Your task to perform on an android device: Go to Yahoo.com Image 0: 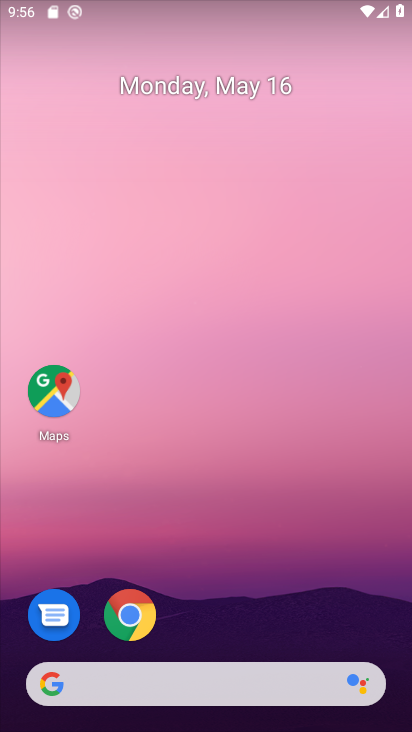
Step 0: drag from (241, 507) to (154, 1)
Your task to perform on an android device: Go to Yahoo.com Image 1: 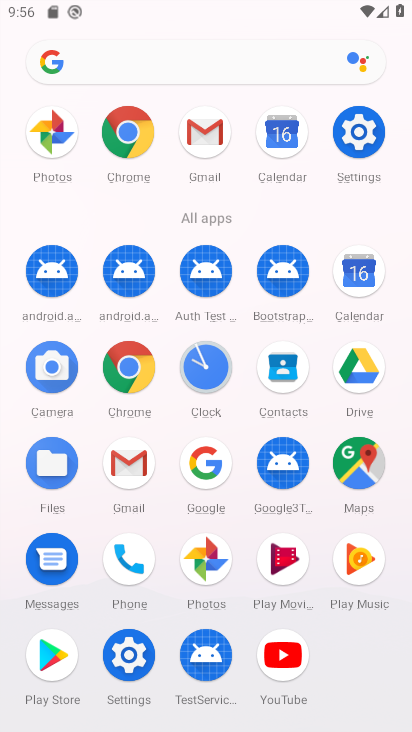
Step 1: drag from (3, 465) to (0, 229)
Your task to perform on an android device: Go to Yahoo.com Image 2: 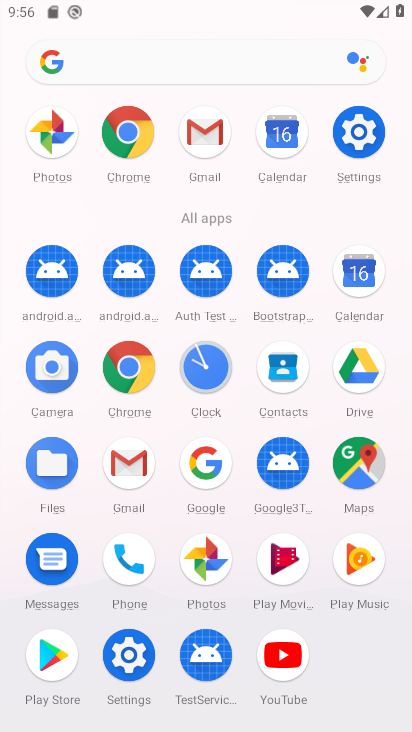
Step 2: click (126, 366)
Your task to perform on an android device: Go to Yahoo.com Image 3: 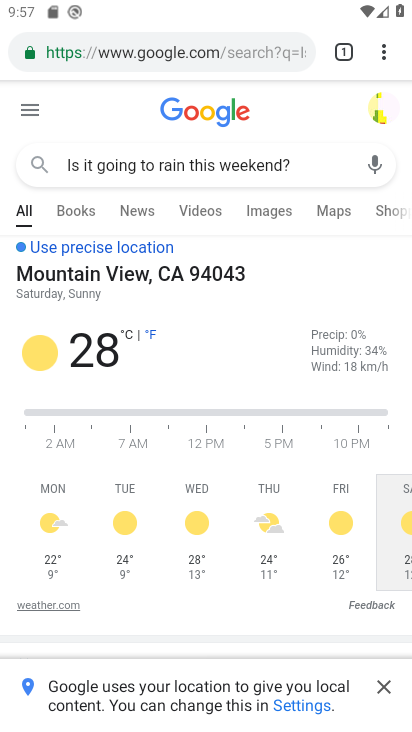
Step 3: click (161, 51)
Your task to perform on an android device: Go to Yahoo.com Image 4: 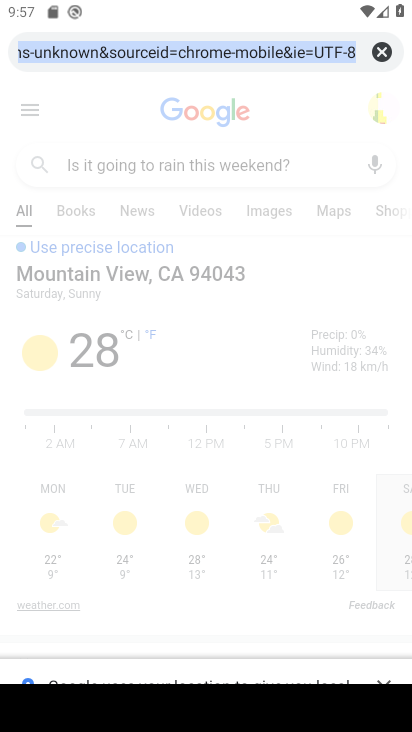
Step 4: click (378, 49)
Your task to perform on an android device: Go to Yahoo.com Image 5: 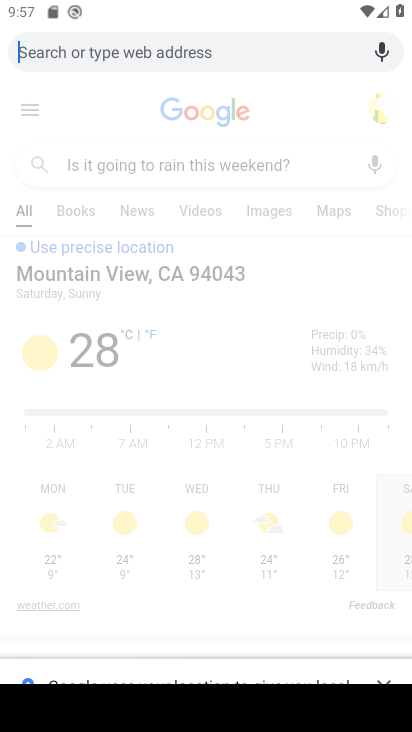
Step 5: type "Yahoo.com"
Your task to perform on an android device: Go to Yahoo.com Image 6: 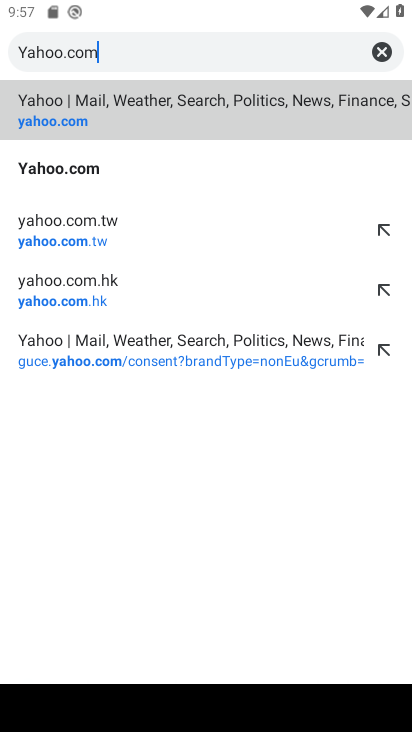
Step 6: click (154, 115)
Your task to perform on an android device: Go to Yahoo.com Image 7: 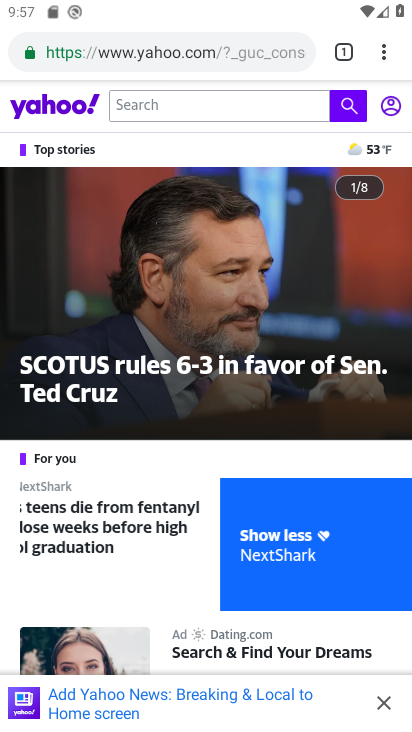
Step 7: task complete